Your task to perform on an android device: Open accessibility settings Image 0: 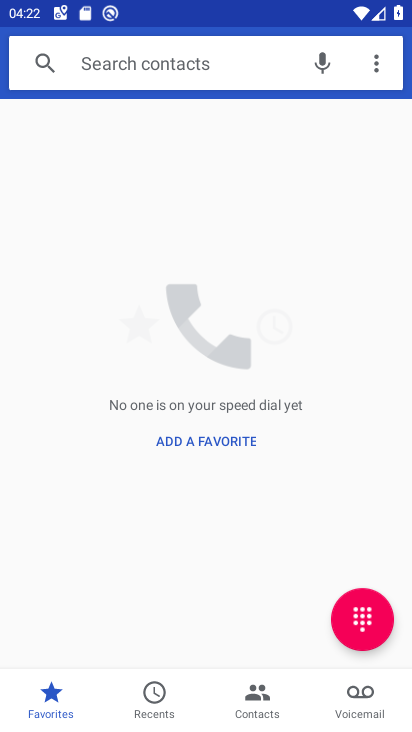
Step 0: press home button
Your task to perform on an android device: Open accessibility settings Image 1: 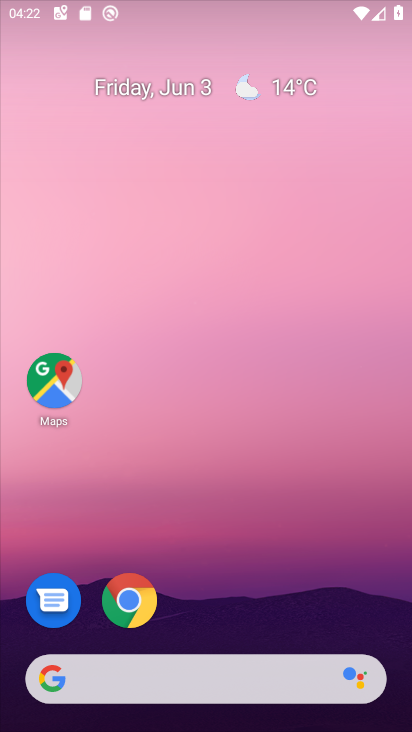
Step 1: drag from (290, 566) to (257, 174)
Your task to perform on an android device: Open accessibility settings Image 2: 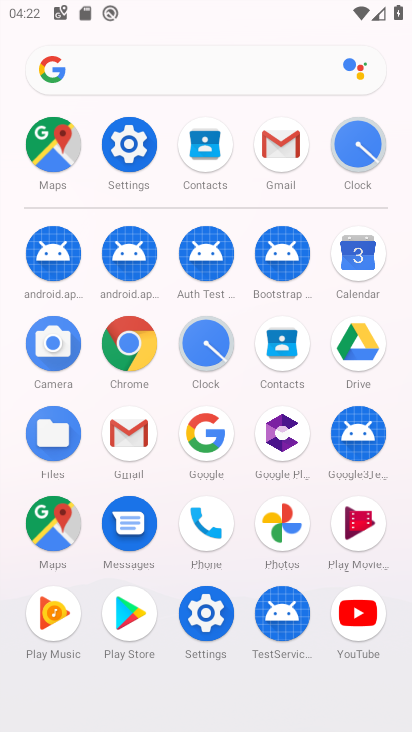
Step 2: click (131, 145)
Your task to perform on an android device: Open accessibility settings Image 3: 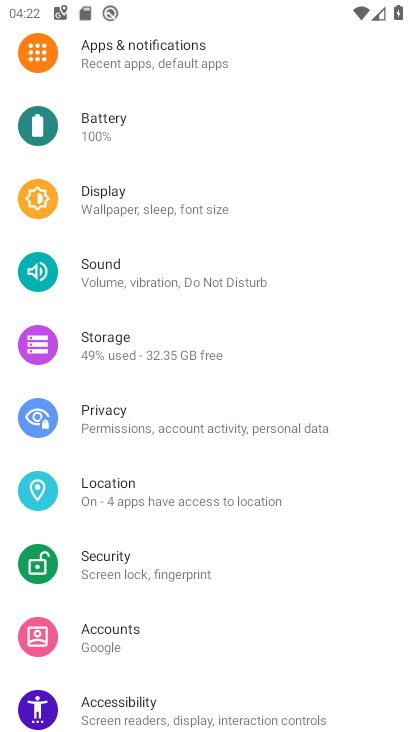
Step 3: drag from (170, 478) to (211, 203)
Your task to perform on an android device: Open accessibility settings Image 4: 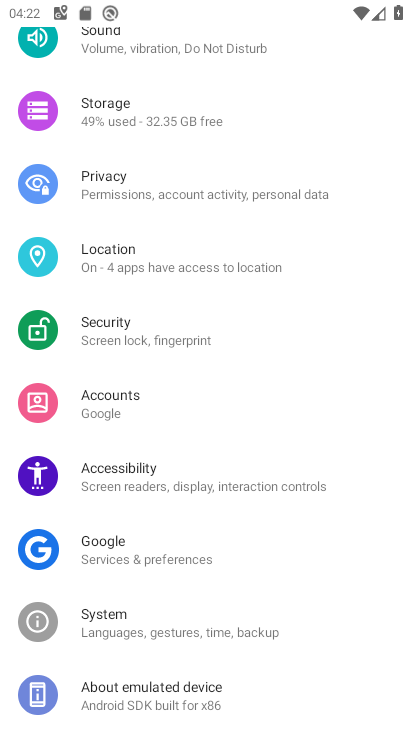
Step 4: click (135, 486)
Your task to perform on an android device: Open accessibility settings Image 5: 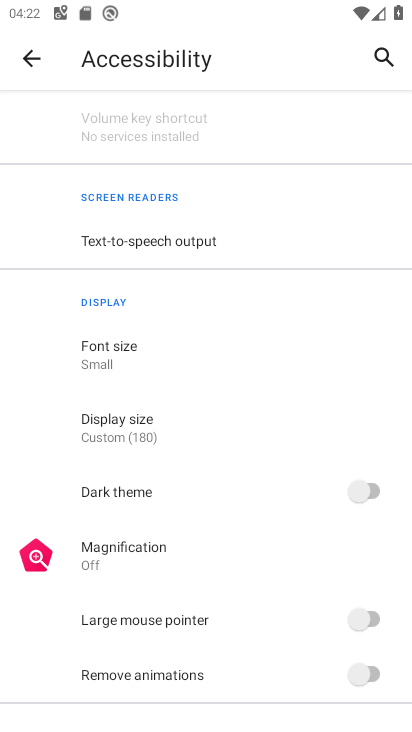
Step 5: task complete